Your task to perform on an android device: open chrome privacy settings Image 0: 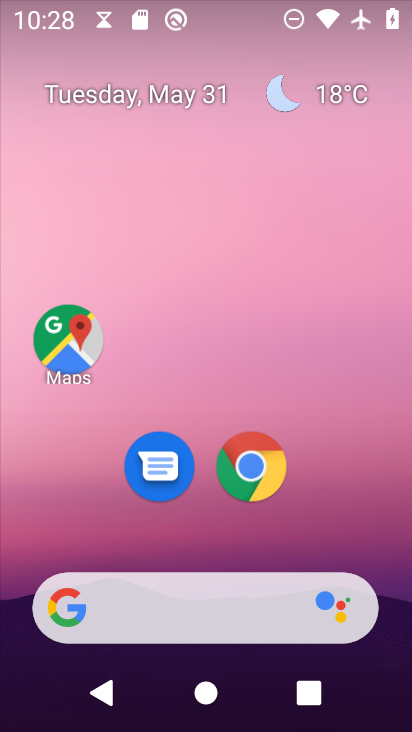
Step 0: drag from (403, 587) to (287, 47)
Your task to perform on an android device: open chrome privacy settings Image 1: 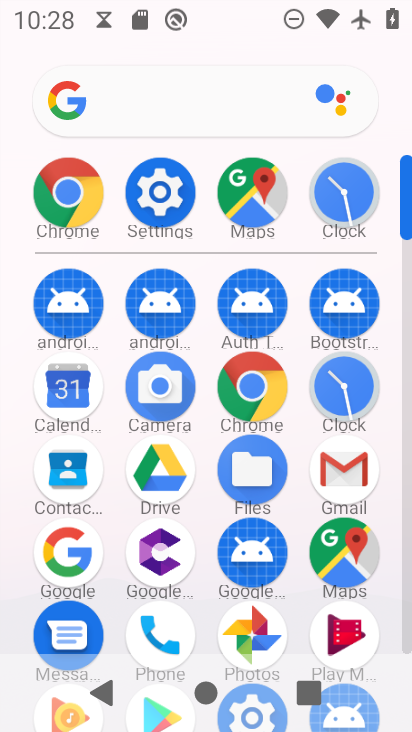
Step 1: drag from (17, 597) to (6, 232)
Your task to perform on an android device: open chrome privacy settings Image 2: 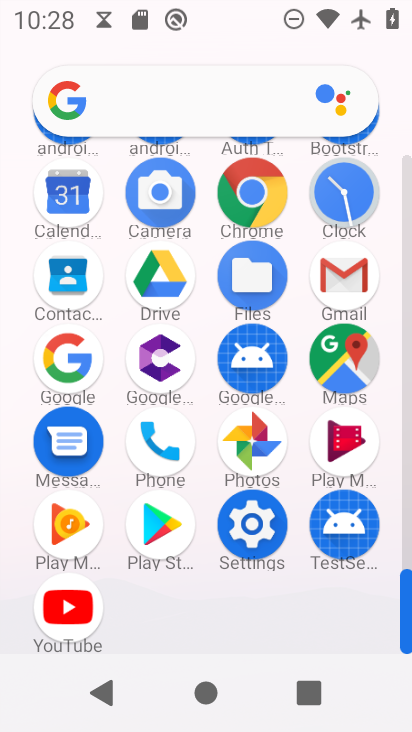
Step 2: click (247, 181)
Your task to perform on an android device: open chrome privacy settings Image 3: 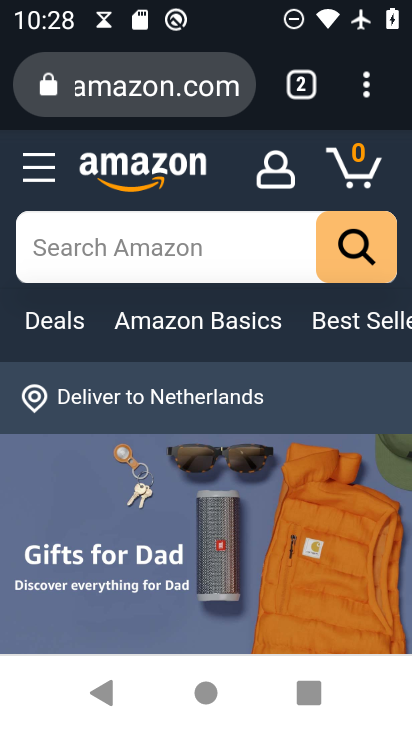
Step 3: drag from (366, 85) to (101, 512)
Your task to perform on an android device: open chrome privacy settings Image 4: 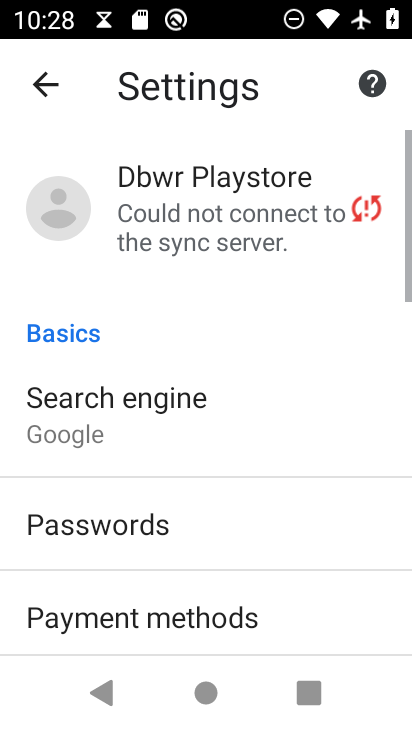
Step 4: drag from (245, 550) to (253, 139)
Your task to perform on an android device: open chrome privacy settings Image 5: 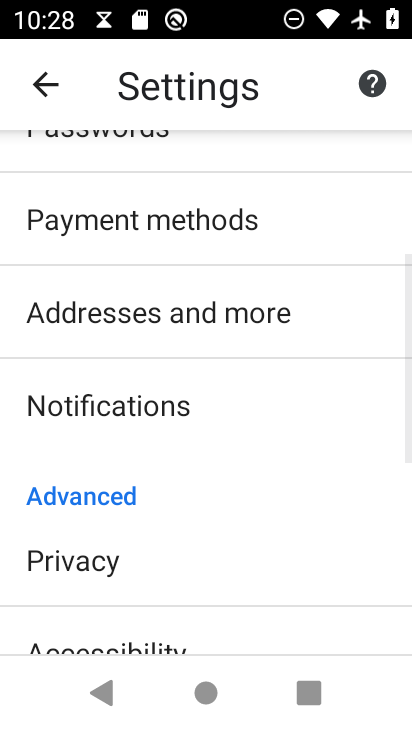
Step 5: drag from (278, 470) to (268, 162)
Your task to perform on an android device: open chrome privacy settings Image 6: 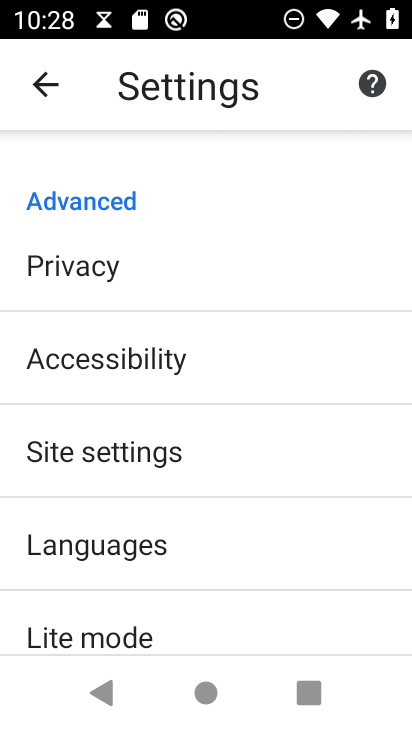
Step 6: click (119, 262)
Your task to perform on an android device: open chrome privacy settings Image 7: 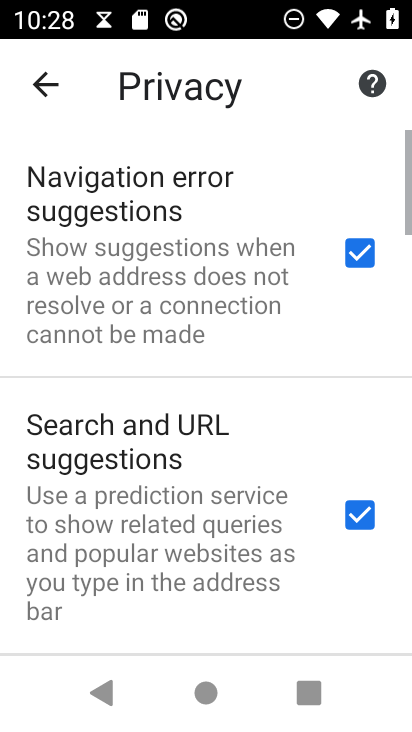
Step 7: task complete